Your task to perform on an android device: toggle data saver in the chrome app Image 0: 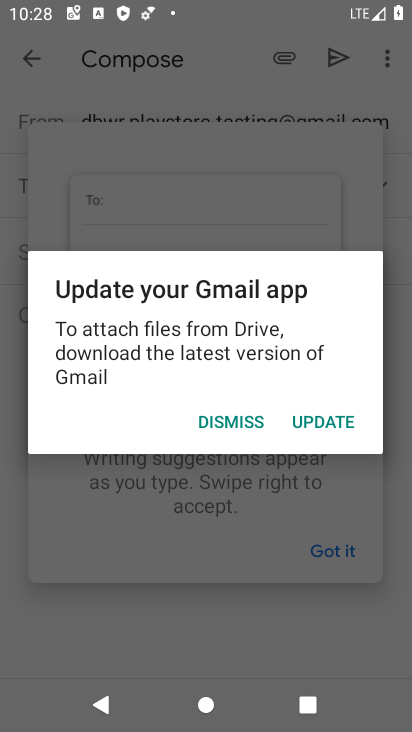
Step 0: press home button
Your task to perform on an android device: toggle data saver in the chrome app Image 1: 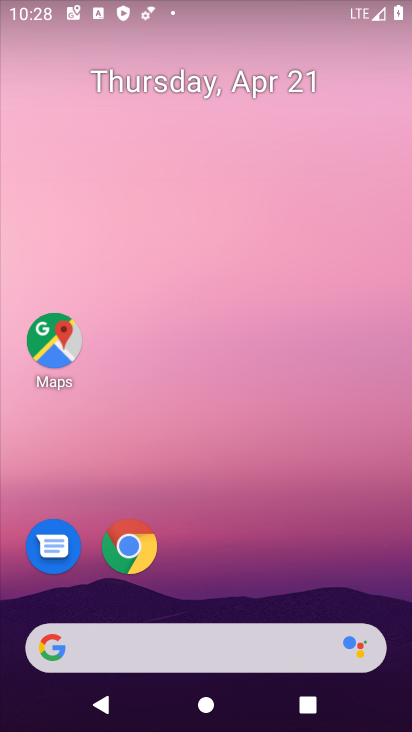
Step 1: click (129, 543)
Your task to perform on an android device: toggle data saver in the chrome app Image 2: 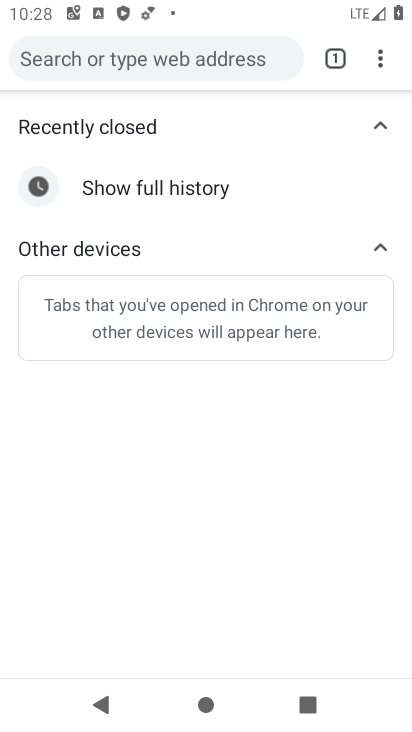
Step 2: click (379, 67)
Your task to perform on an android device: toggle data saver in the chrome app Image 3: 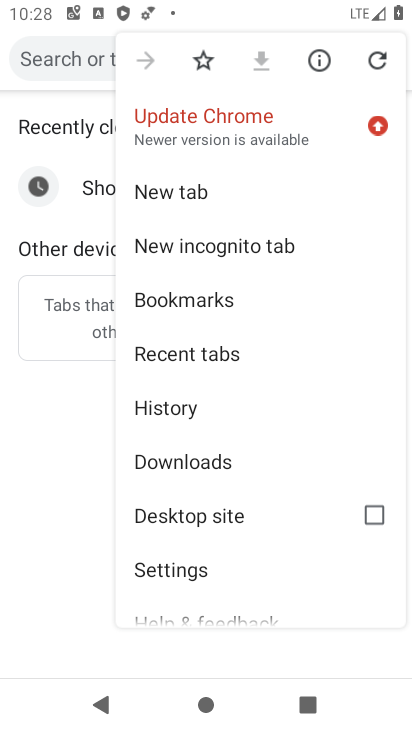
Step 3: drag from (249, 544) to (259, 325)
Your task to perform on an android device: toggle data saver in the chrome app Image 4: 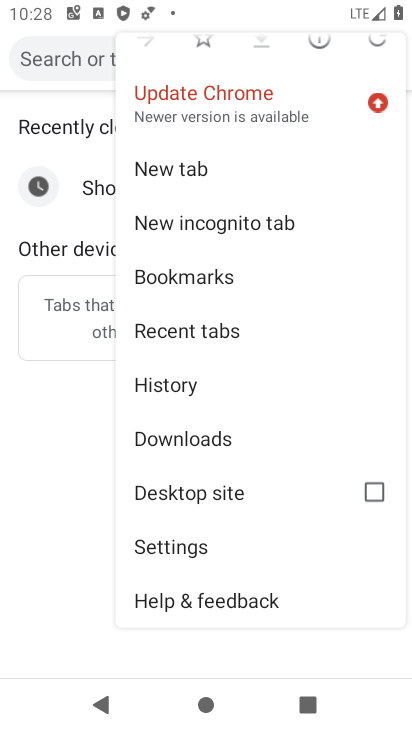
Step 4: click (177, 543)
Your task to perform on an android device: toggle data saver in the chrome app Image 5: 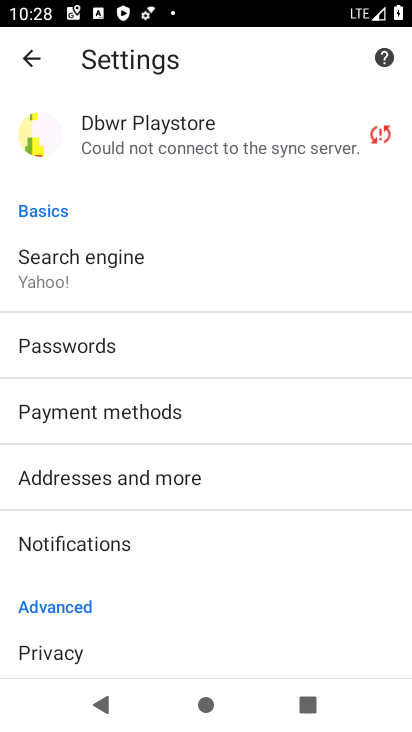
Step 5: drag from (177, 543) to (216, 203)
Your task to perform on an android device: toggle data saver in the chrome app Image 6: 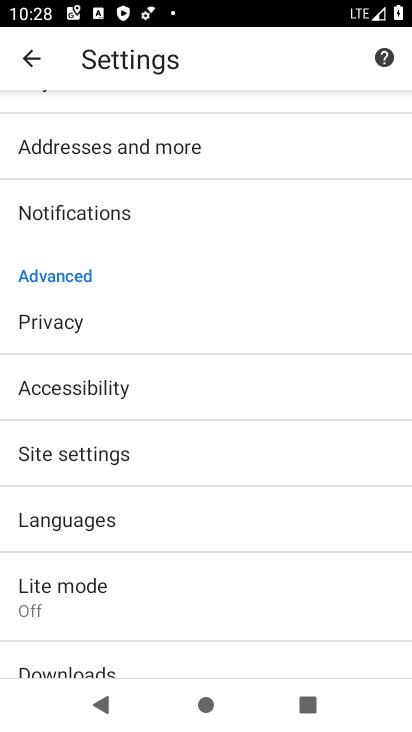
Step 6: click (42, 599)
Your task to perform on an android device: toggle data saver in the chrome app Image 7: 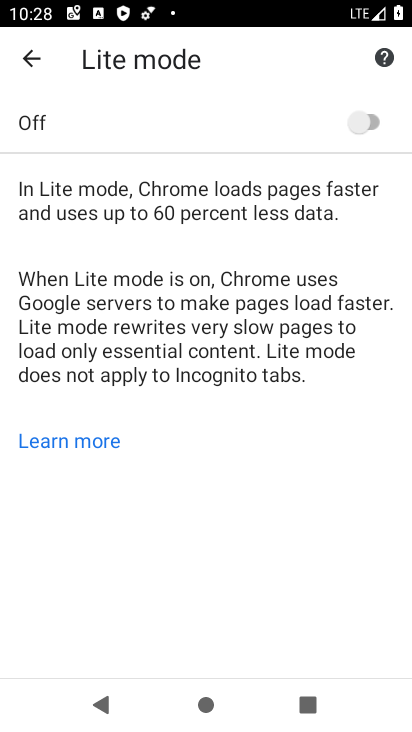
Step 7: click (371, 126)
Your task to perform on an android device: toggle data saver in the chrome app Image 8: 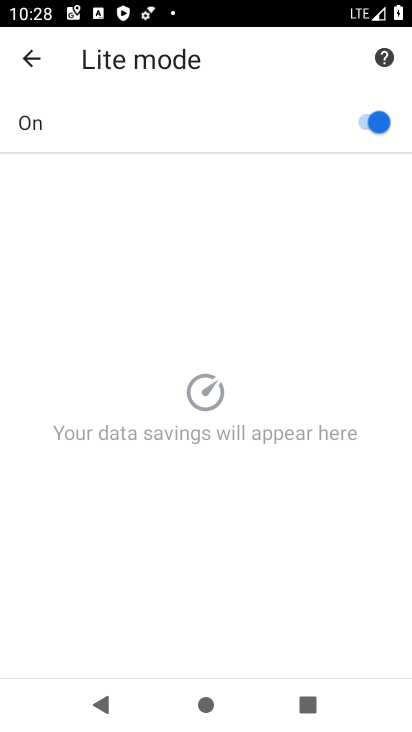
Step 8: task complete